Your task to perform on an android device: turn on javascript in the chrome app Image 0: 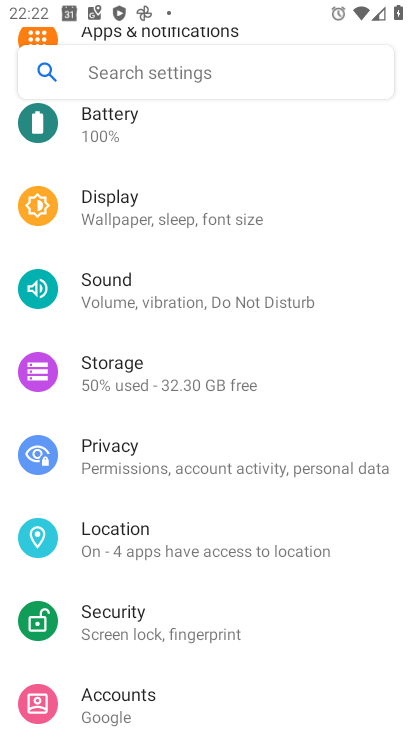
Step 0: press home button
Your task to perform on an android device: turn on javascript in the chrome app Image 1: 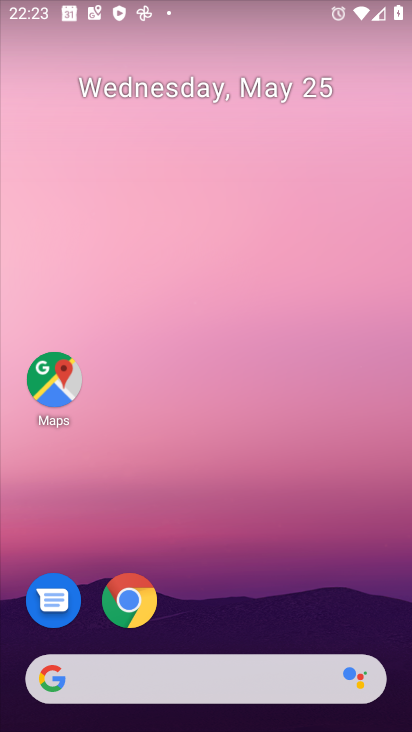
Step 1: drag from (383, 513) to (386, 127)
Your task to perform on an android device: turn on javascript in the chrome app Image 2: 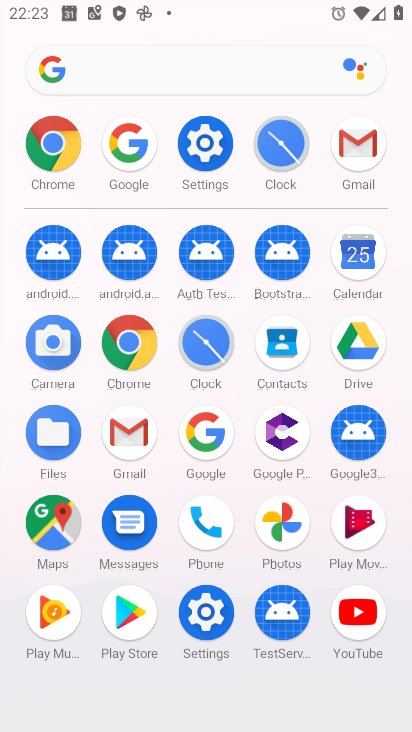
Step 2: click (134, 337)
Your task to perform on an android device: turn on javascript in the chrome app Image 3: 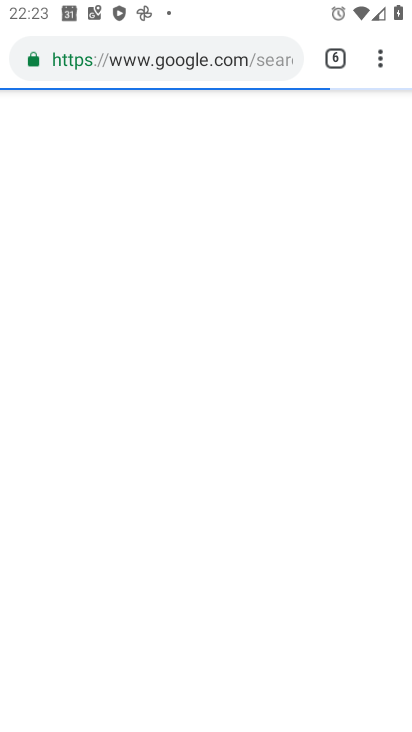
Step 3: drag from (376, 55) to (208, 640)
Your task to perform on an android device: turn on javascript in the chrome app Image 4: 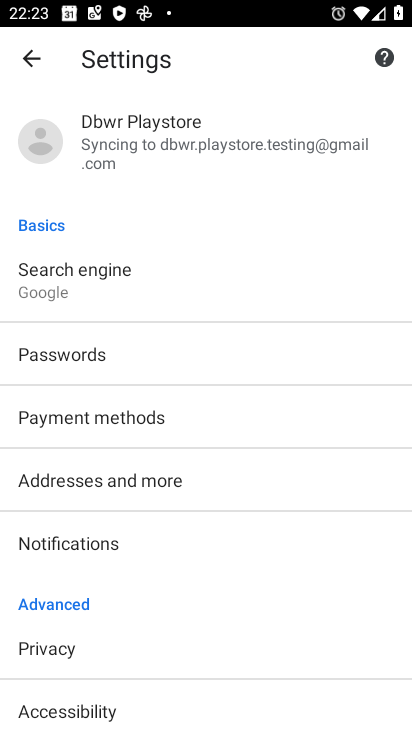
Step 4: drag from (225, 621) to (256, 345)
Your task to perform on an android device: turn on javascript in the chrome app Image 5: 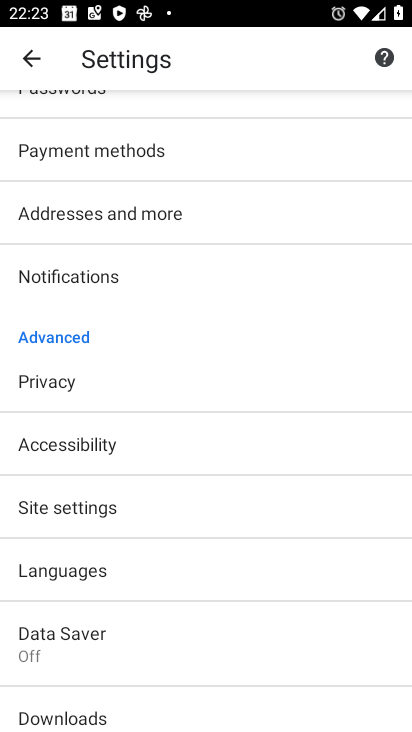
Step 5: click (135, 521)
Your task to perform on an android device: turn on javascript in the chrome app Image 6: 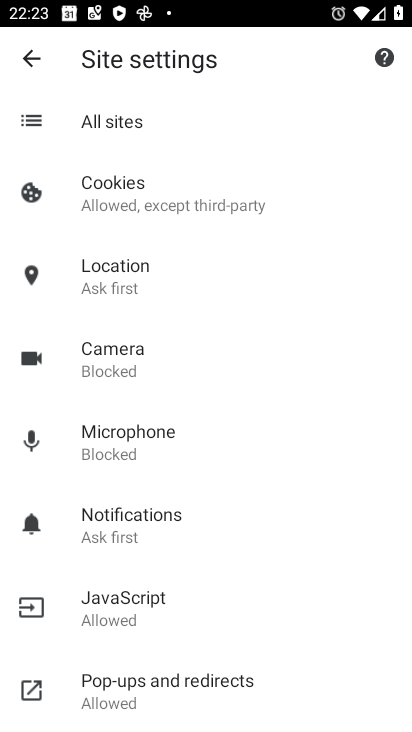
Step 6: click (163, 612)
Your task to perform on an android device: turn on javascript in the chrome app Image 7: 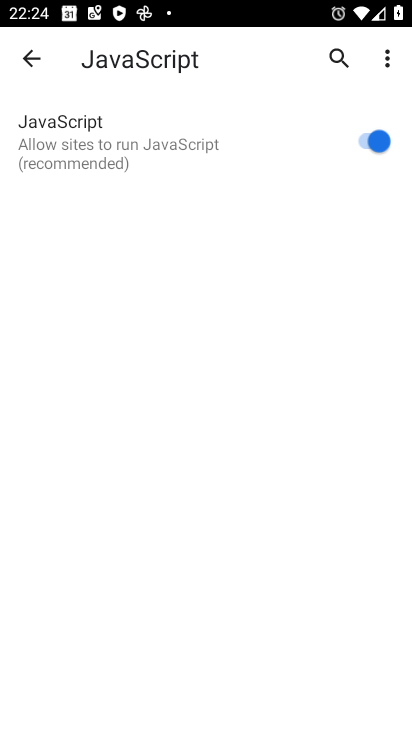
Step 7: task complete